Your task to perform on an android device: choose inbox layout in the gmail app Image 0: 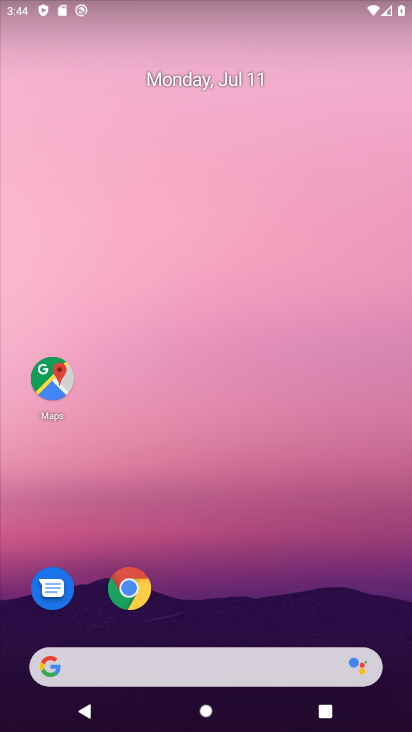
Step 0: drag from (185, 656) to (174, 257)
Your task to perform on an android device: choose inbox layout in the gmail app Image 1: 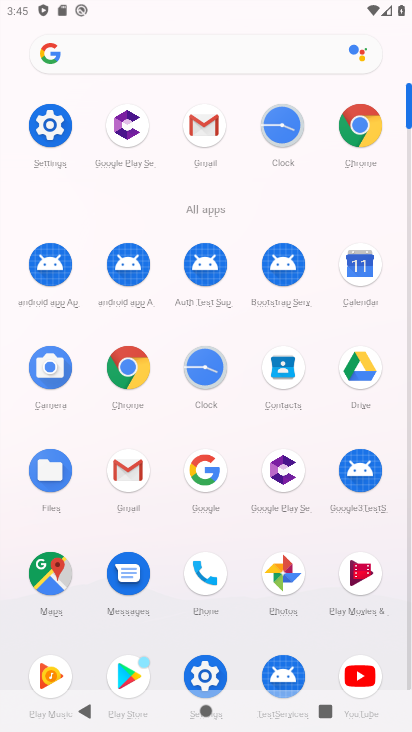
Step 1: click (131, 471)
Your task to perform on an android device: choose inbox layout in the gmail app Image 2: 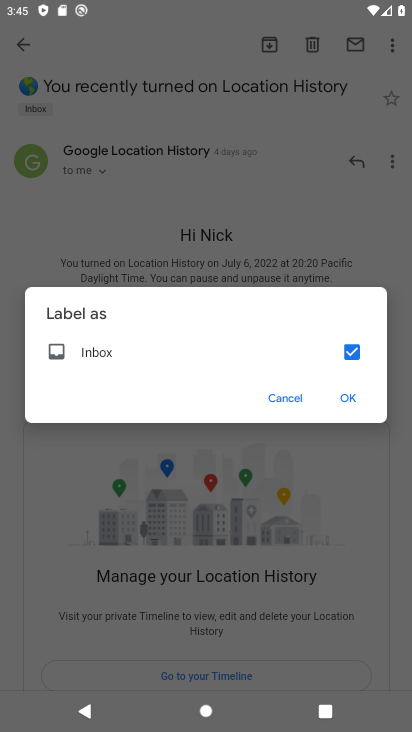
Step 2: click (286, 399)
Your task to perform on an android device: choose inbox layout in the gmail app Image 3: 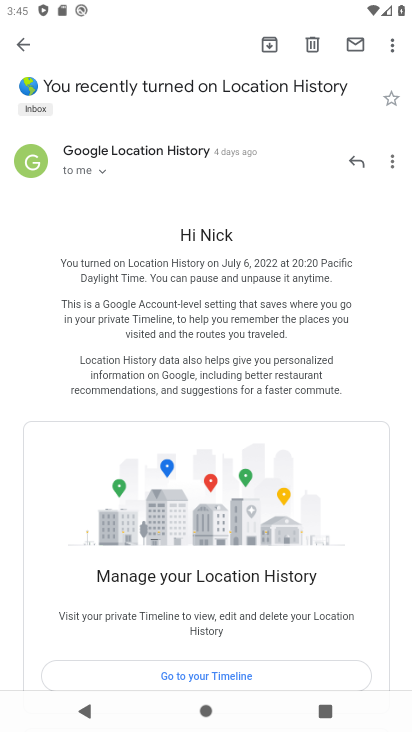
Step 3: click (21, 47)
Your task to perform on an android device: choose inbox layout in the gmail app Image 4: 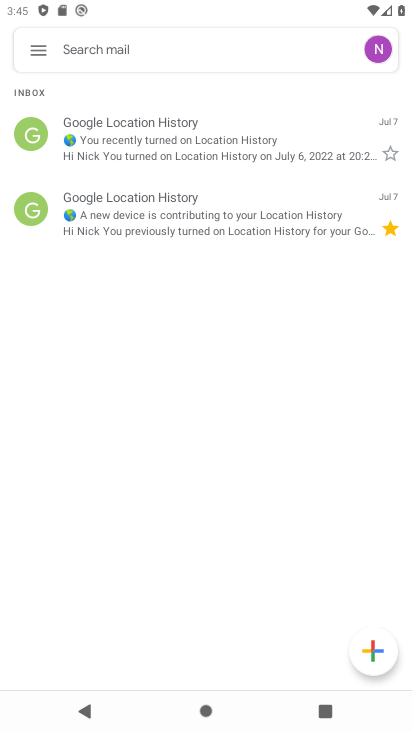
Step 4: click (36, 46)
Your task to perform on an android device: choose inbox layout in the gmail app Image 5: 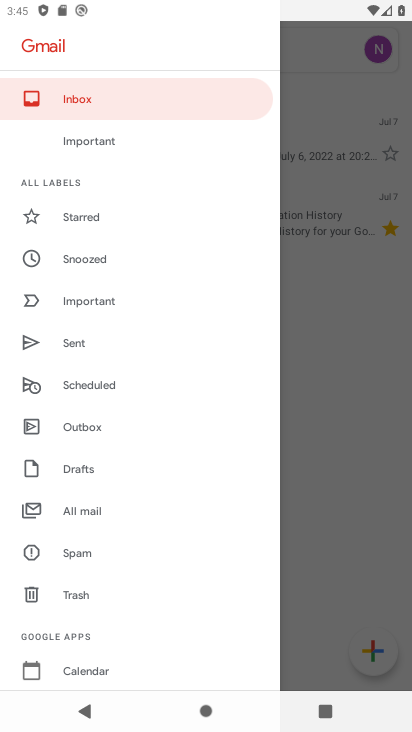
Step 5: drag from (89, 616) to (148, 183)
Your task to perform on an android device: choose inbox layout in the gmail app Image 6: 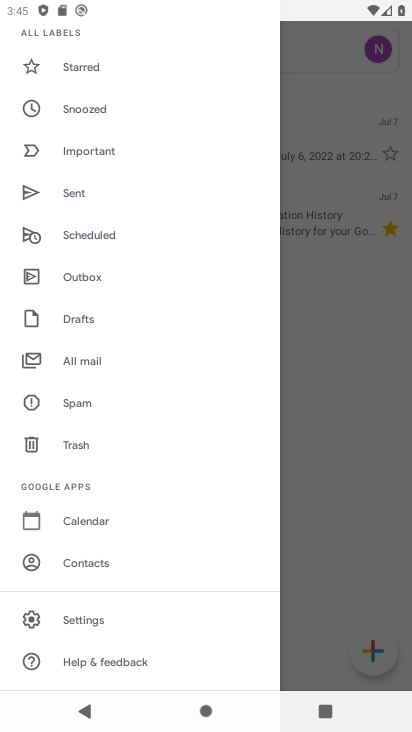
Step 6: click (67, 616)
Your task to perform on an android device: choose inbox layout in the gmail app Image 7: 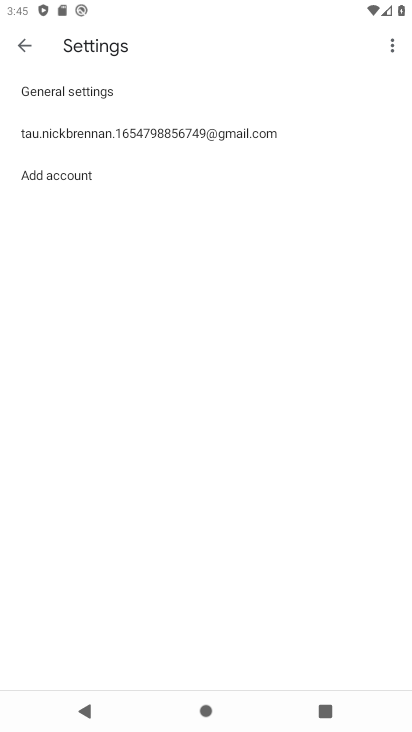
Step 7: click (180, 137)
Your task to perform on an android device: choose inbox layout in the gmail app Image 8: 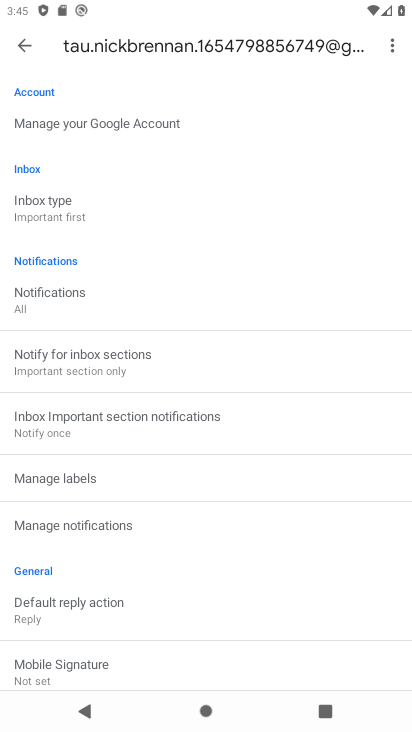
Step 8: click (86, 213)
Your task to perform on an android device: choose inbox layout in the gmail app Image 9: 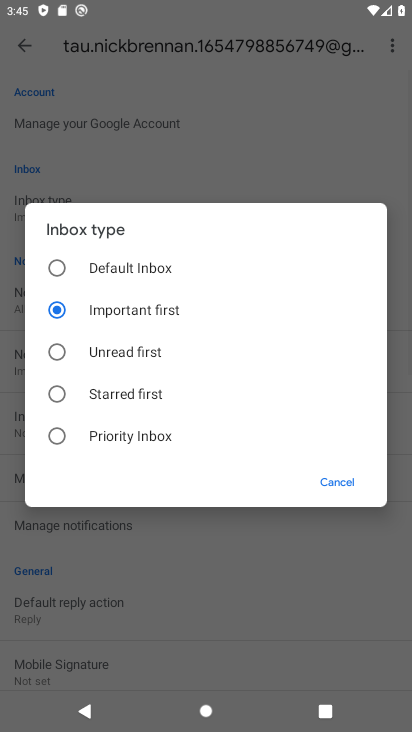
Step 9: click (141, 263)
Your task to perform on an android device: choose inbox layout in the gmail app Image 10: 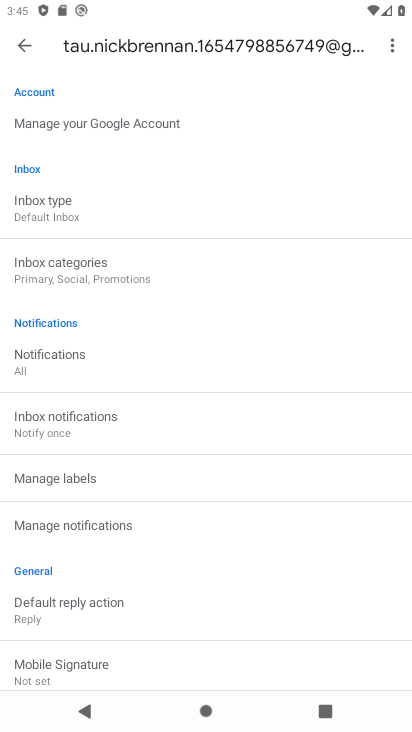
Step 10: task complete